Your task to perform on an android device: Search for Mexican restaurants on Maps Image 0: 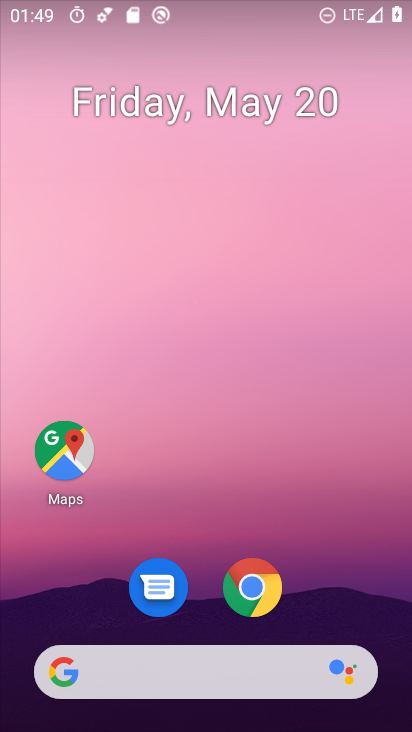
Step 0: drag from (381, 597) to (392, 195)
Your task to perform on an android device: Search for Mexican restaurants on Maps Image 1: 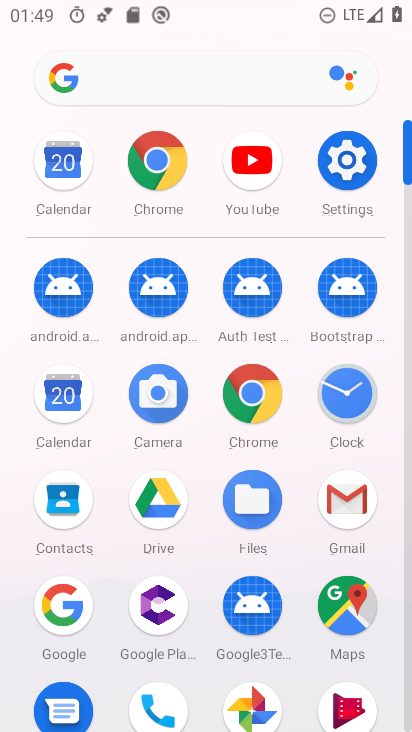
Step 1: click (335, 591)
Your task to perform on an android device: Search for Mexican restaurants on Maps Image 2: 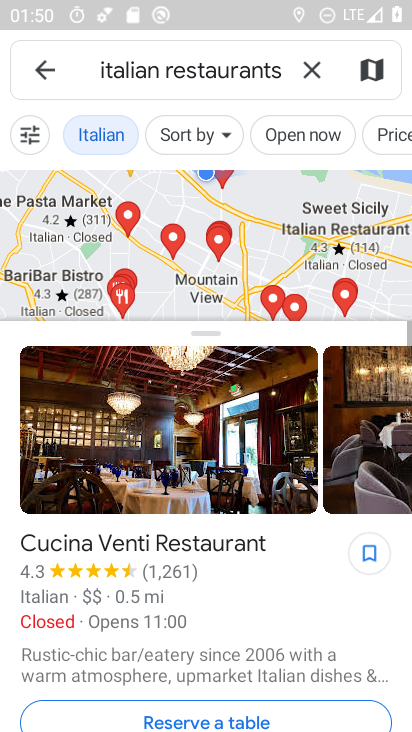
Step 2: click (314, 74)
Your task to perform on an android device: Search for Mexican restaurants on Maps Image 3: 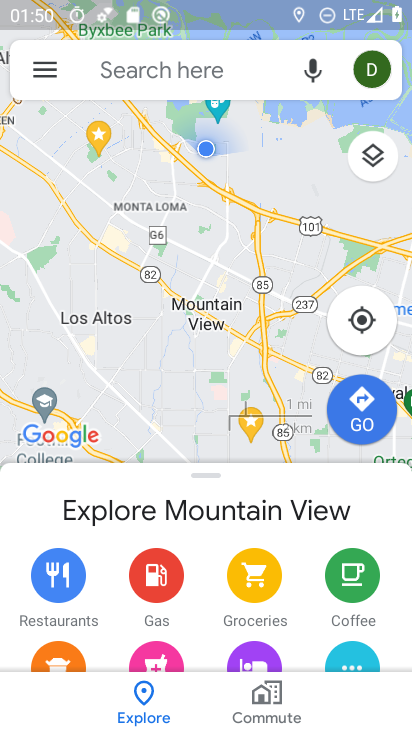
Step 3: click (213, 72)
Your task to perform on an android device: Search for Mexican restaurants on Maps Image 4: 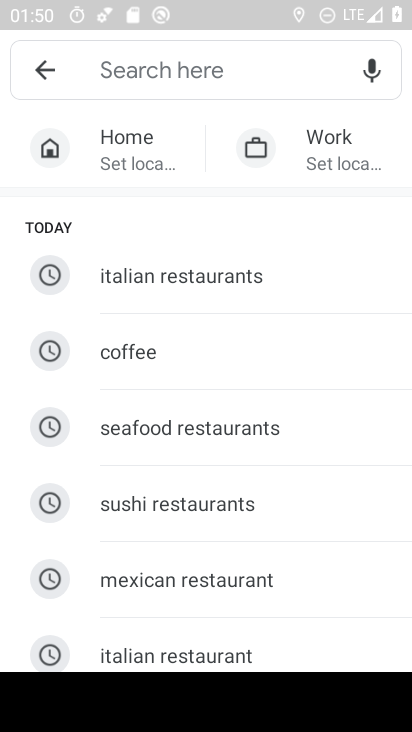
Step 4: type "mexcian restaurants"
Your task to perform on an android device: Search for Mexican restaurants on Maps Image 5: 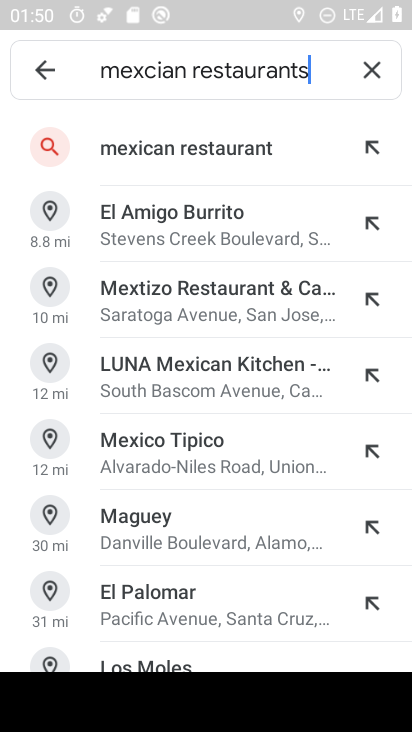
Step 5: click (236, 155)
Your task to perform on an android device: Search for Mexican restaurants on Maps Image 6: 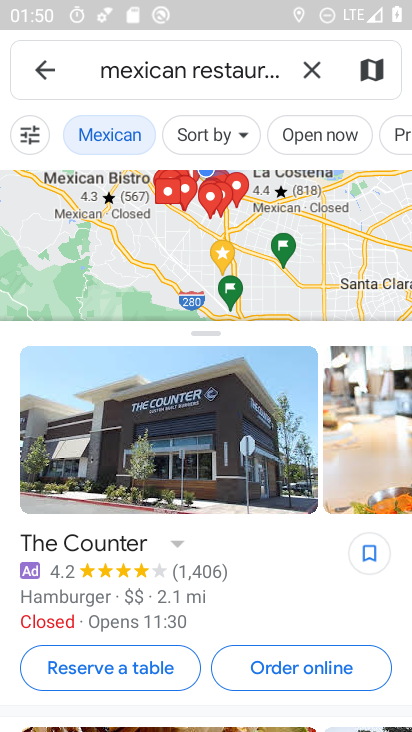
Step 6: task complete